Your task to perform on an android device: Clear all items from cart on bestbuy. Search for "macbook" on bestbuy, select the first entry, and add it to the cart. Image 0: 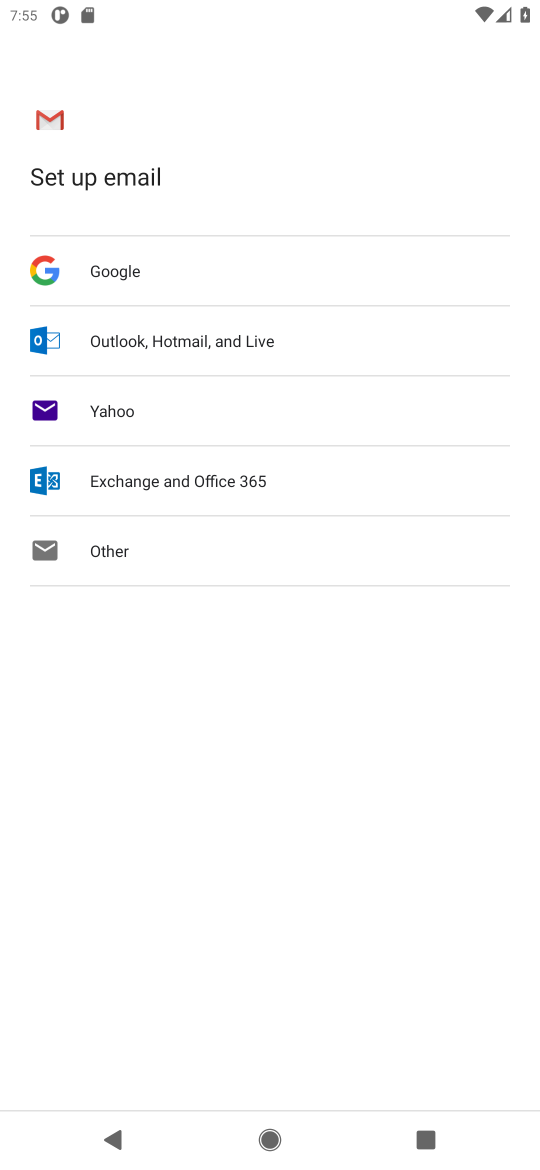
Step 0: press home button
Your task to perform on an android device: Clear all items from cart on bestbuy. Search for "macbook" on bestbuy, select the first entry, and add it to the cart. Image 1: 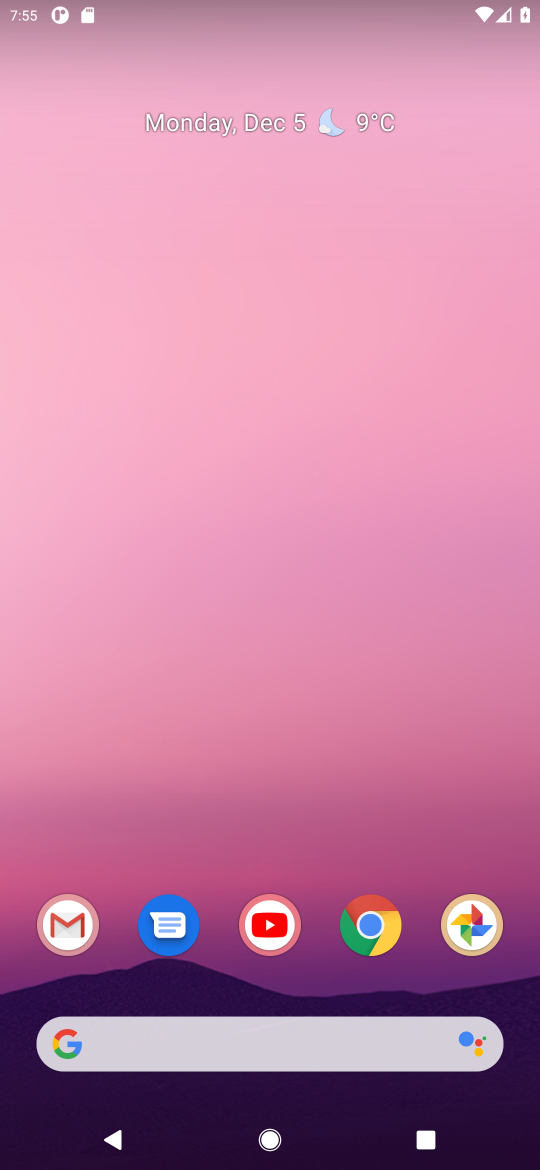
Step 1: click (372, 931)
Your task to perform on an android device: Clear all items from cart on bestbuy. Search for "macbook" on bestbuy, select the first entry, and add it to the cart. Image 2: 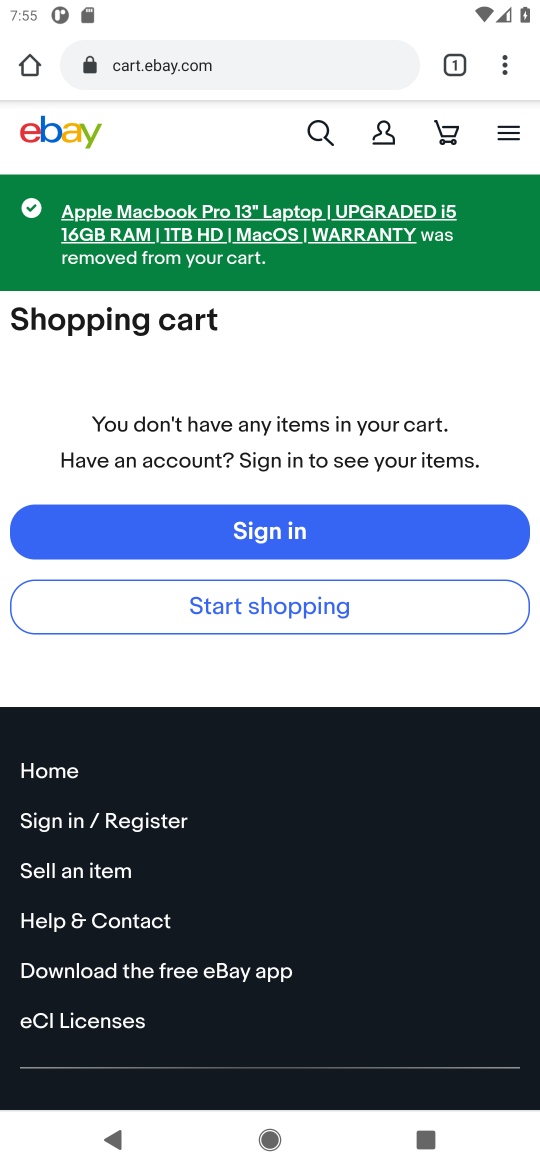
Step 2: click (200, 72)
Your task to perform on an android device: Clear all items from cart on bestbuy. Search for "macbook" on bestbuy, select the first entry, and add it to the cart. Image 3: 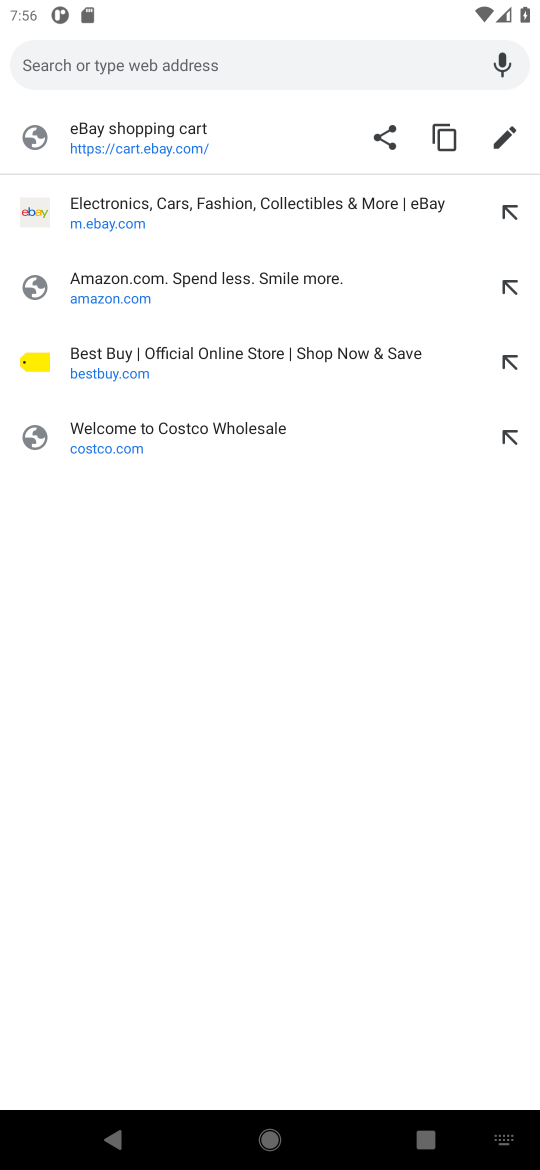
Step 3: click (68, 375)
Your task to perform on an android device: Clear all items from cart on bestbuy. Search for "macbook" on bestbuy, select the first entry, and add it to the cart. Image 4: 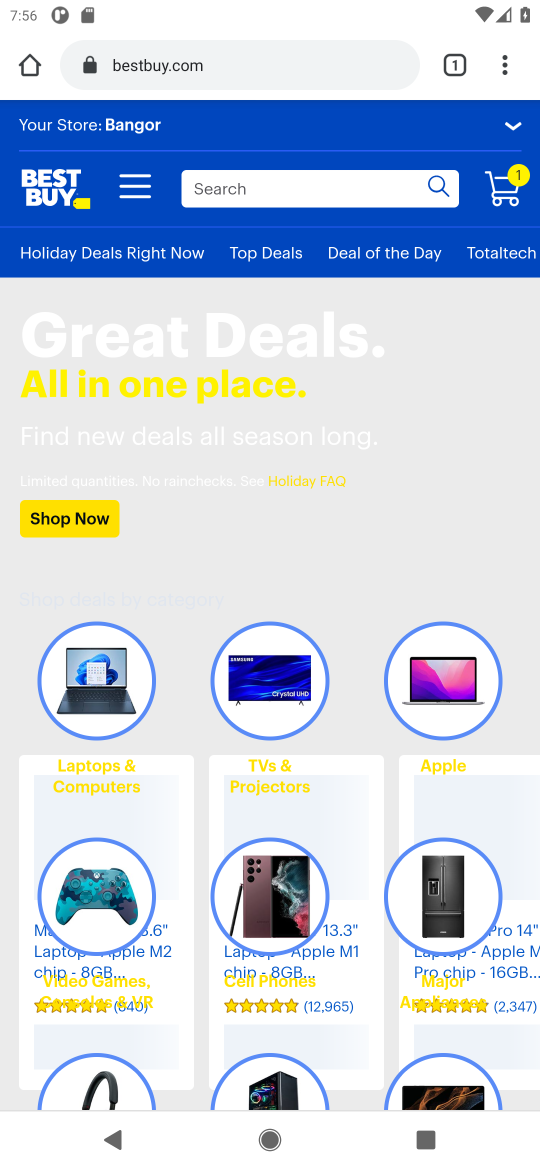
Step 4: click (515, 197)
Your task to perform on an android device: Clear all items from cart on bestbuy. Search for "macbook" on bestbuy, select the first entry, and add it to the cart. Image 5: 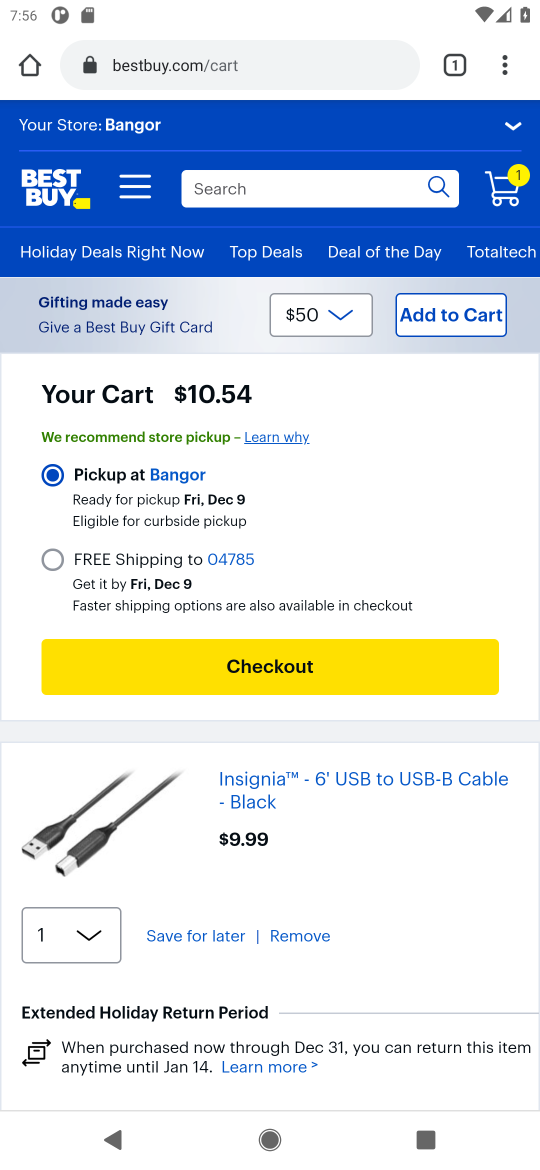
Step 5: drag from (291, 873) to (313, 600)
Your task to perform on an android device: Clear all items from cart on bestbuy. Search for "macbook" on bestbuy, select the first entry, and add it to the cart. Image 6: 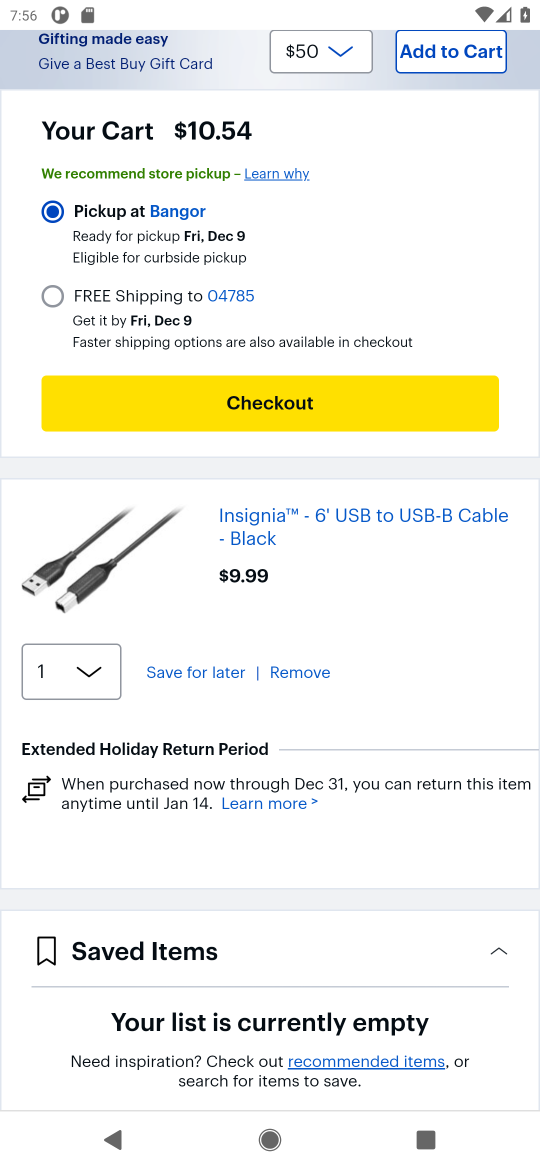
Step 6: click (289, 671)
Your task to perform on an android device: Clear all items from cart on bestbuy. Search for "macbook" on bestbuy, select the first entry, and add it to the cart. Image 7: 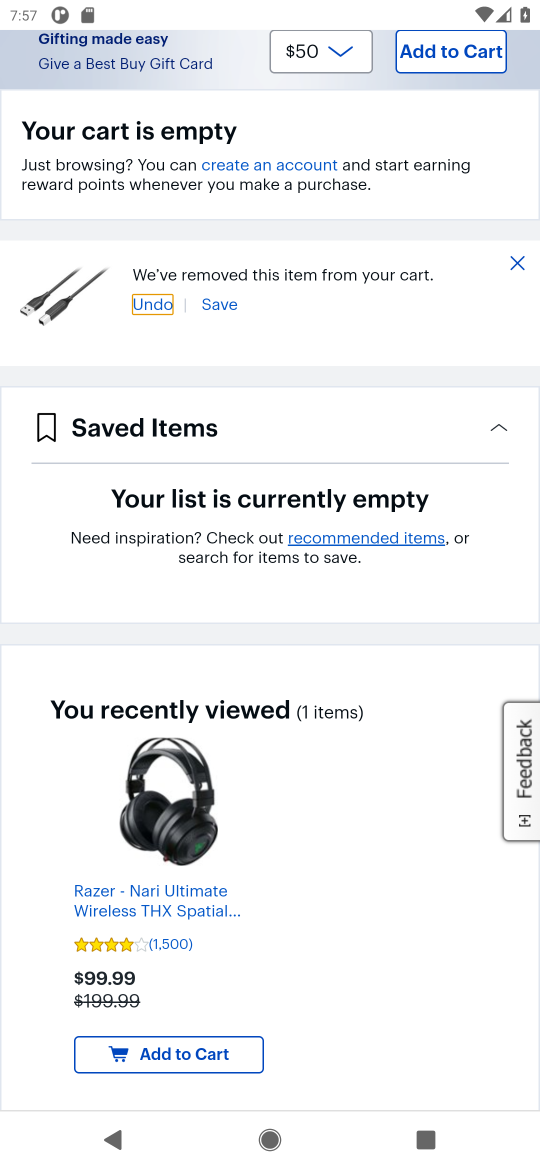
Step 7: drag from (419, 541) to (351, 1048)
Your task to perform on an android device: Clear all items from cart on bestbuy. Search for "macbook" on bestbuy, select the first entry, and add it to the cart. Image 8: 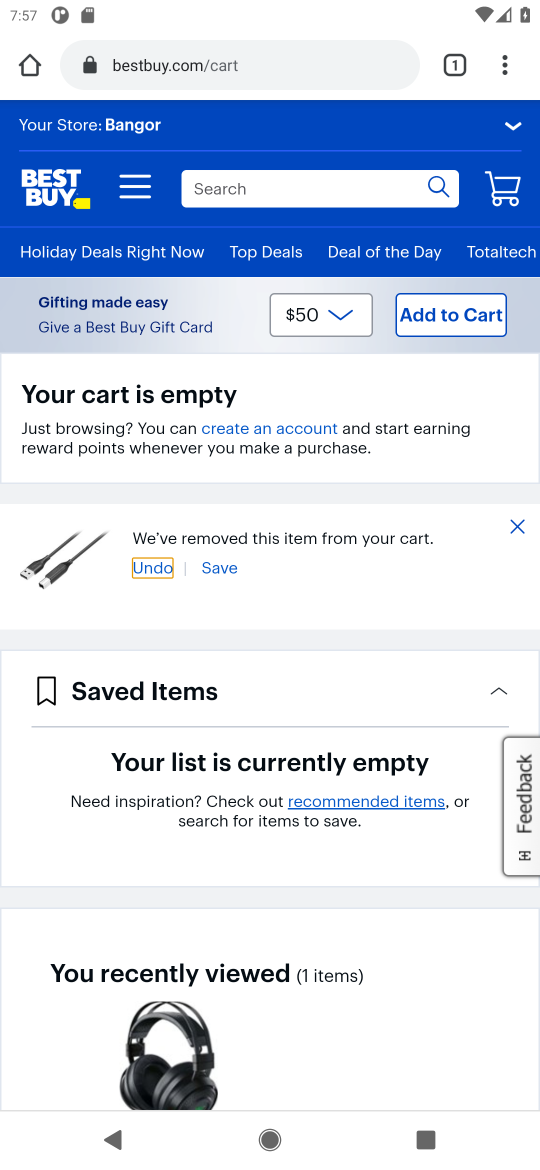
Step 8: click (229, 192)
Your task to perform on an android device: Clear all items from cart on bestbuy. Search for "macbook" on bestbuy, select the first entry, and add it to the cart. Image 9: 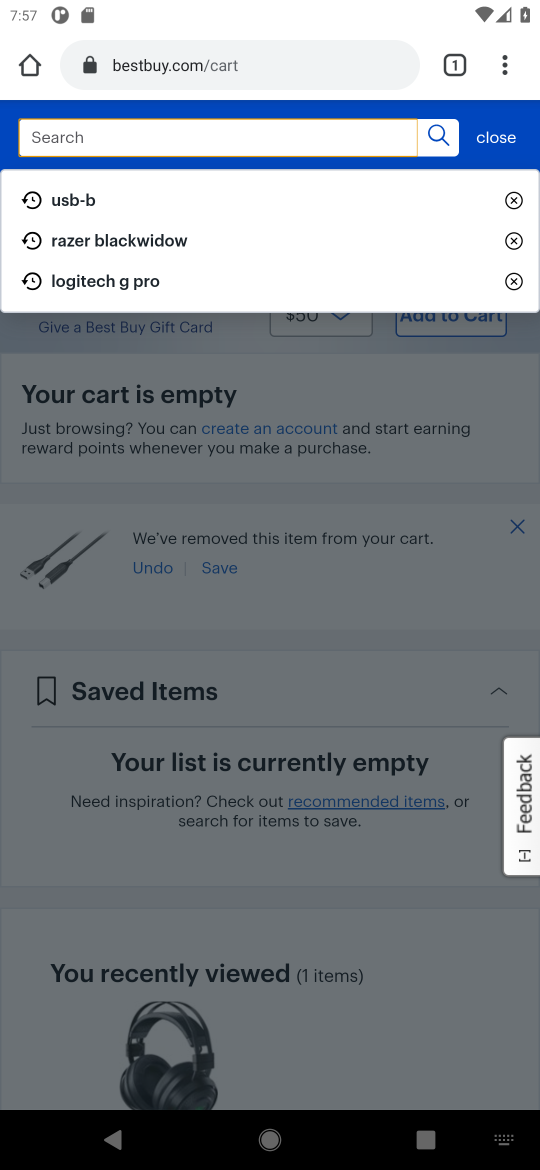
Step 9: type "macbook"
Your task to perform on an android device: Clear all items from cart on bestbuy. Search for "macbook" on bestbuy, select the first entry, and add it to the cart. Image 10: 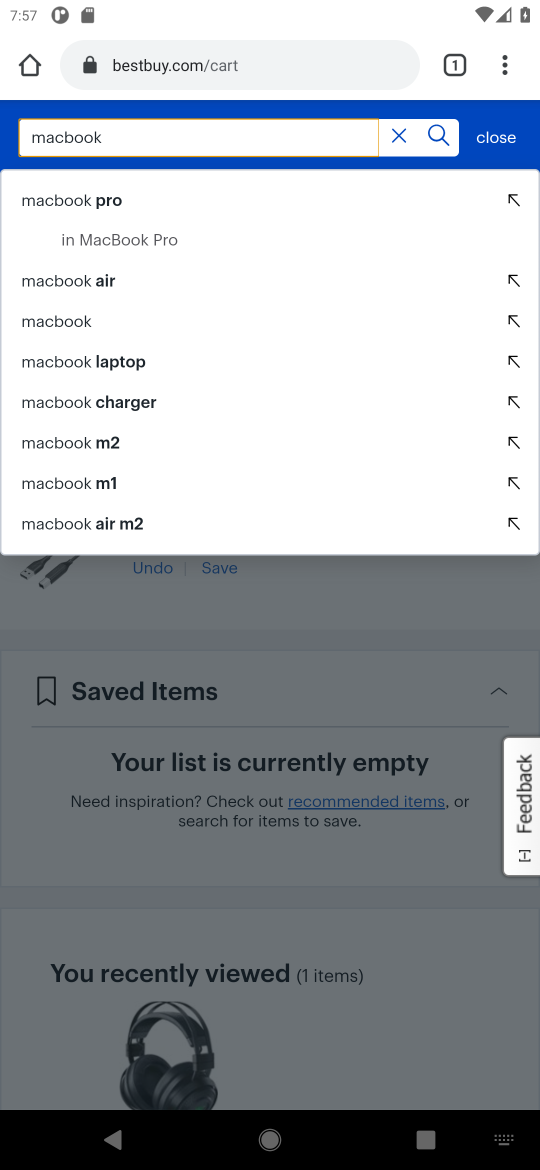
Step 10: click (428, 136)
Your task to perform on an android device: Clear all items from cart on bestbuy. Search for "macbook" on bestbuy, select the first entry, and add it to the cart. Image 11: 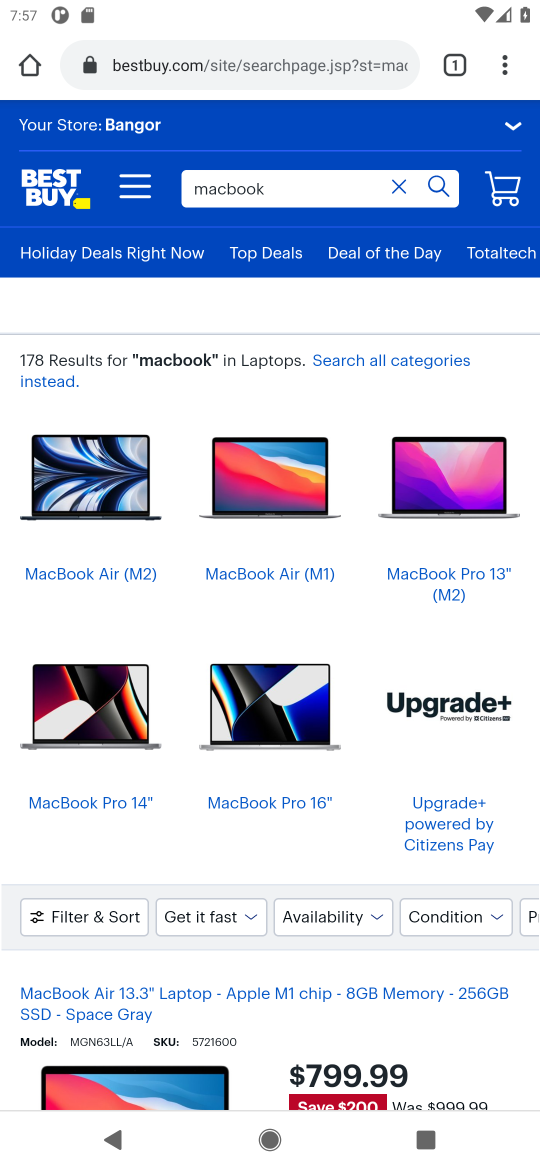
Step 11: drag from (191, 1018) to (205, 570)
Your task to perform on an android device: Clear all items from cart on bestbuy. Search for "macbook" on bestbuy, select the first entry, and add it to the cart. Image 12: 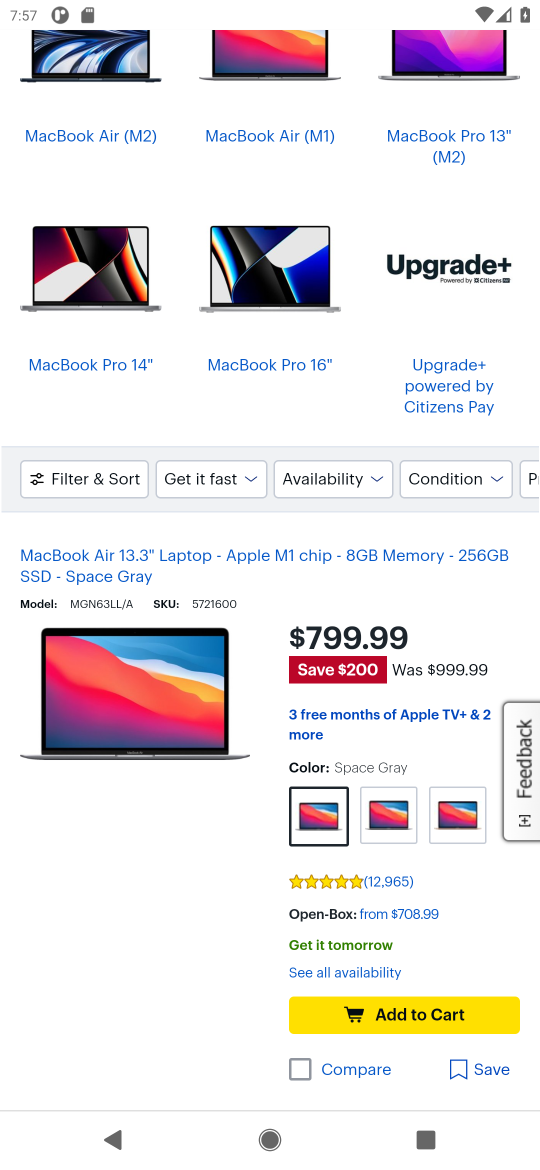
Step 12: click (383, 1013)
Your task to perform on an android device: Clear all items from cart on bestbuy. Search for "macbook" on bestbuy, select the first entry, and add it to the cart. Image 13: 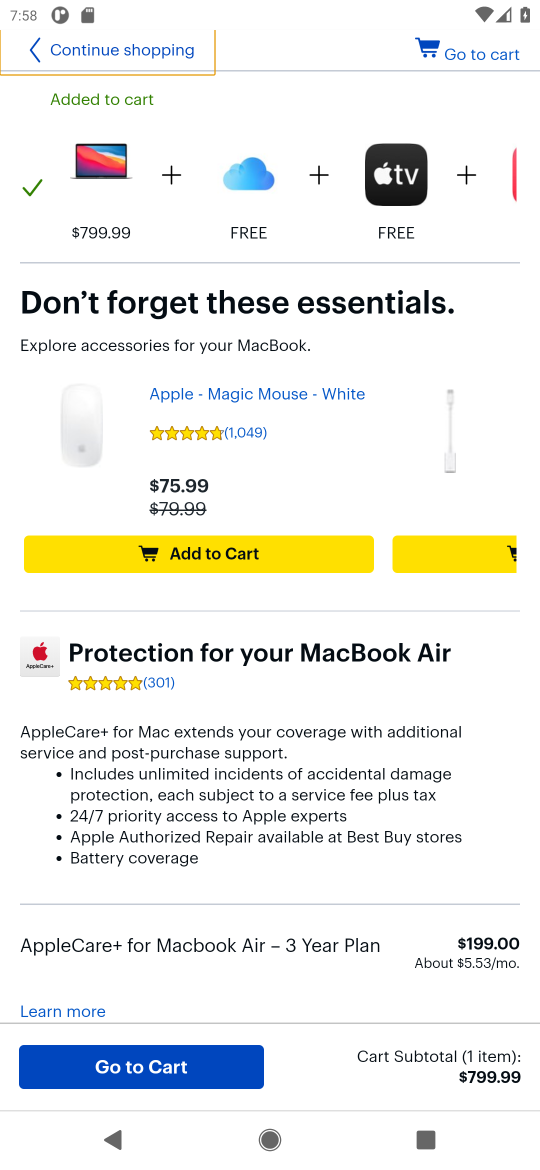
Step 13: task complete